Your task to perform on an android device: Search for jbl charge 4 on walmart.com, select the first entry, and add it to the cart. Image 0: 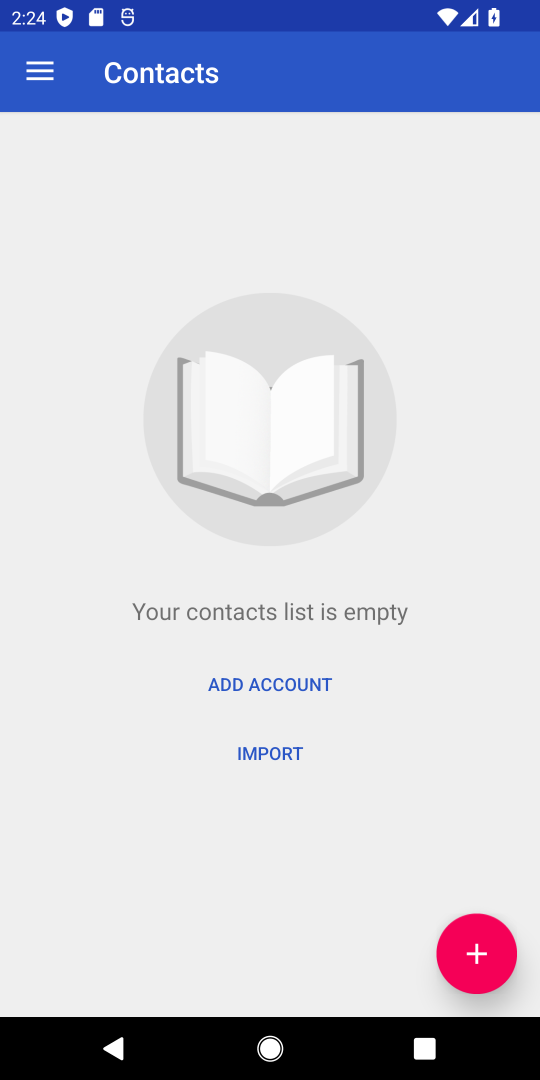
Step 0: press home button
Your task to perform on an android device: Search for jbl charge 4 on walmart.com, select the first entry, and add it to the cart. Image 1: 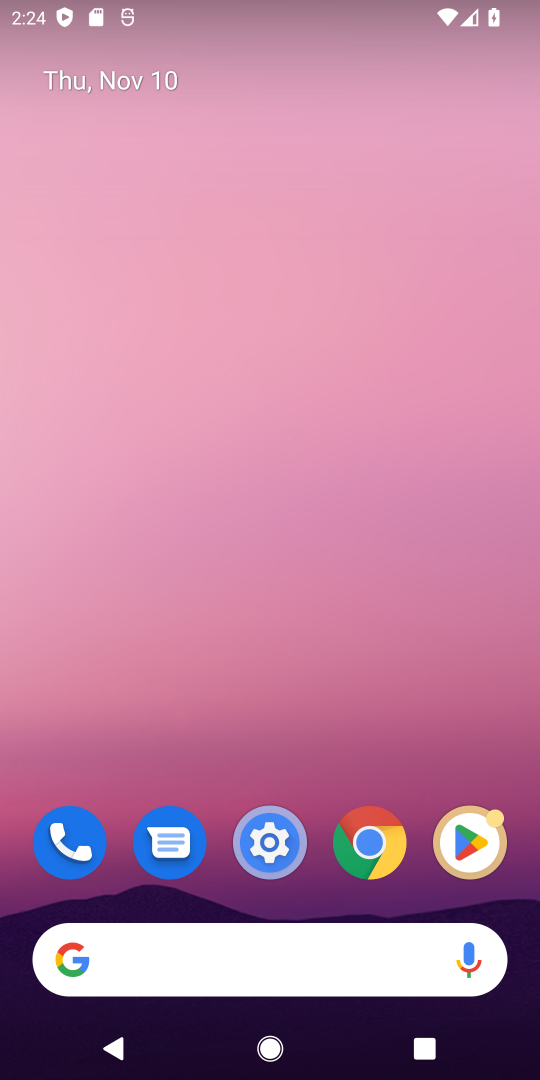
Step 1: click (111, 952)
Your task to perform on an android device: Search for jbl charge 4 on walmart.com, select the first entry, and add it to the cart. Image 2: 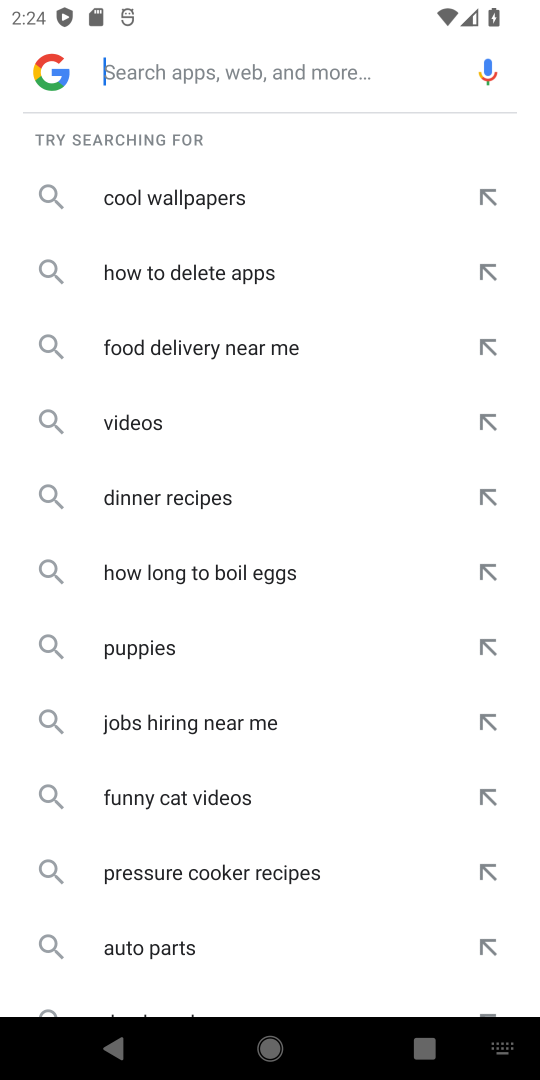
Step 2: type "walmart.com,"
Your task to perform on an android device: Search for jbl charge 4 on walmart.com, select the first entry, and add it to the cart. Image 3: 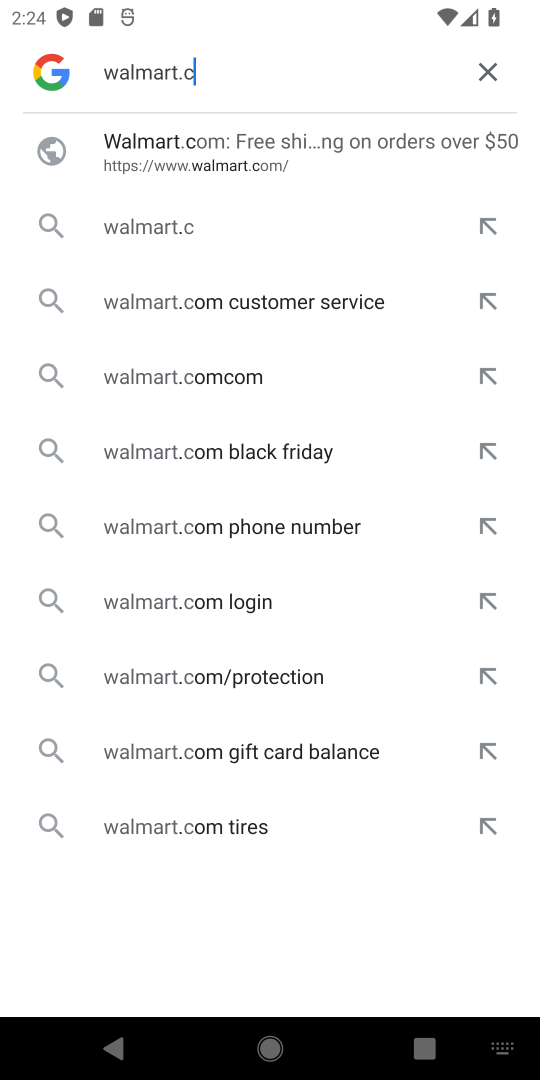
Step 3: press enter
Your task to perform on an android device: Search for jbl charge 4 on walmart.com, select the first entry, and add it to the cart. Image 4: 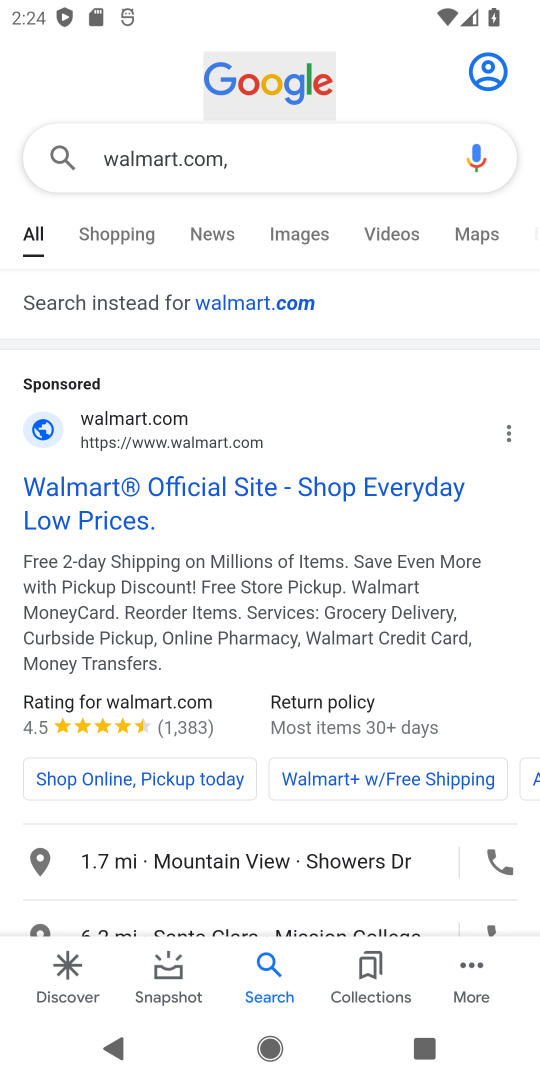
Step 4: click (130, 487)
Your task to perform on an android device: Search for jbl charge 4 on walmart.com, select the first entry, and add it to the cart. Image 5: 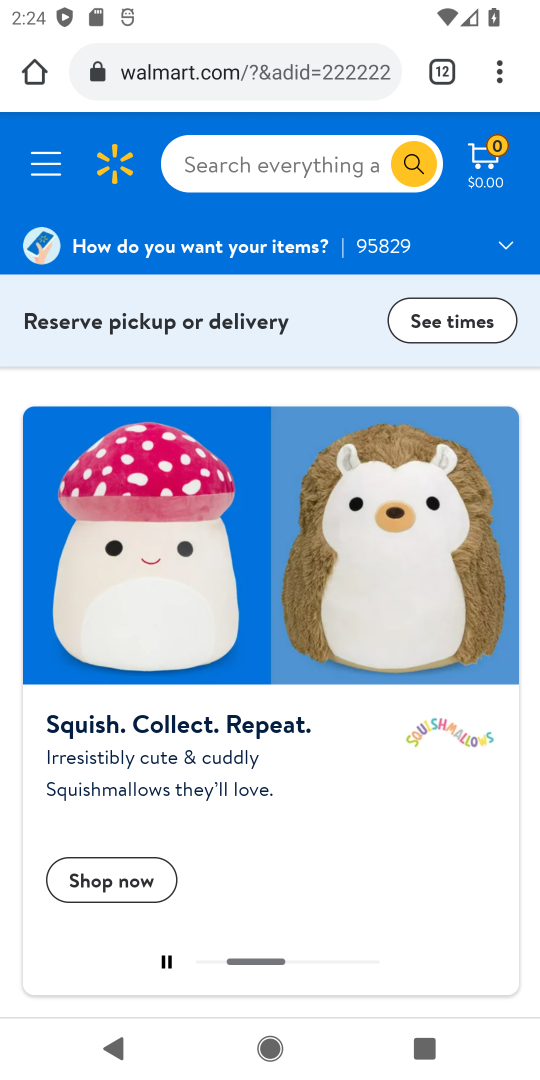
Step 5: click (207, 166)
Your task to perform on an android device: Search for jbl charge 4 on walmart.com, select the first entry, and add it to the cart. Image 6: 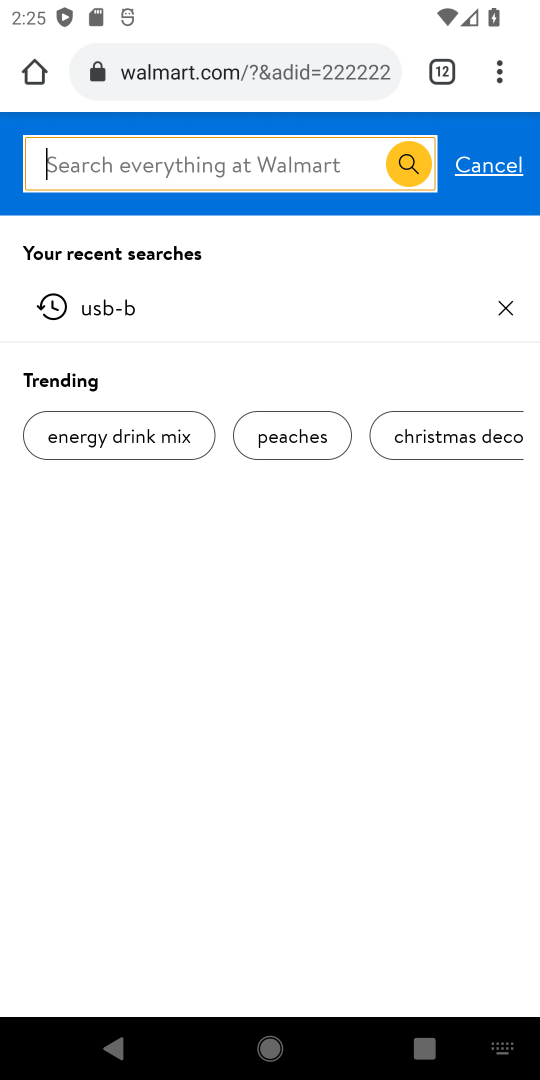
Step 6: type " jbl charge 4"
Your task to perform on an android device: Search for jbl charge 4 on walmart.com, select the first entry, and add it to the cart. Image 7: 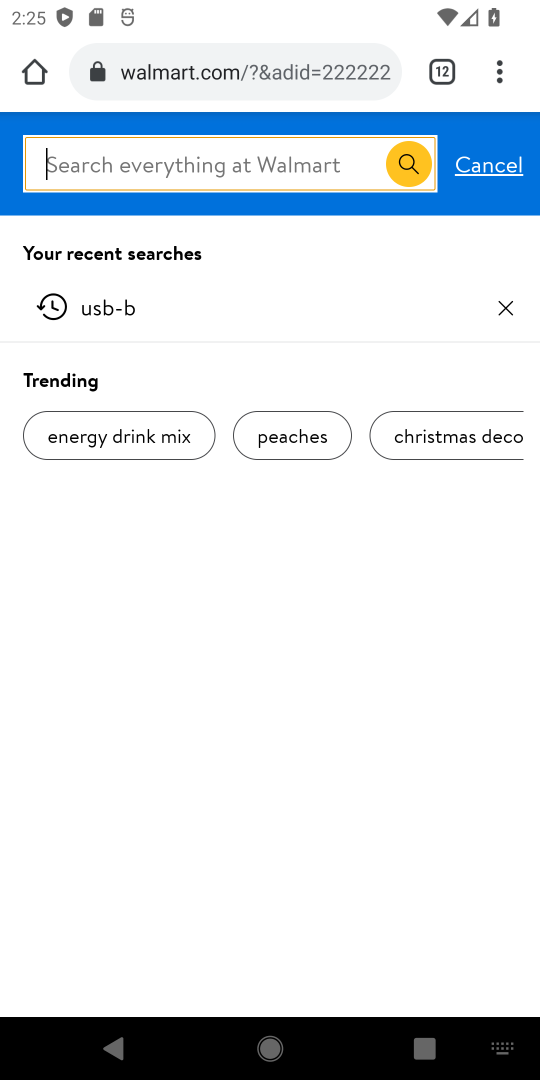
Step 7: press enter
Your task to perform on an android device: Search for jbl charge 4 on walmart.com, select the first entry, and add it to the cart. Image 8: 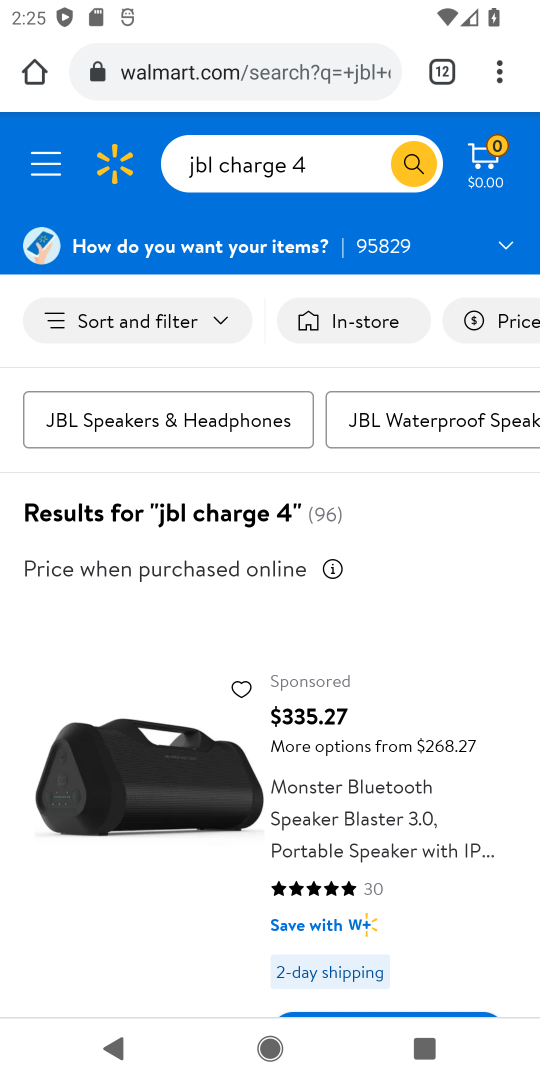
Step 8: drag from (407, 918) to (407, 641)
Your task to perform on an android device: Search for jbl charge 4 on walmart.com, select the first entry, and add it to the cart. Image 9: 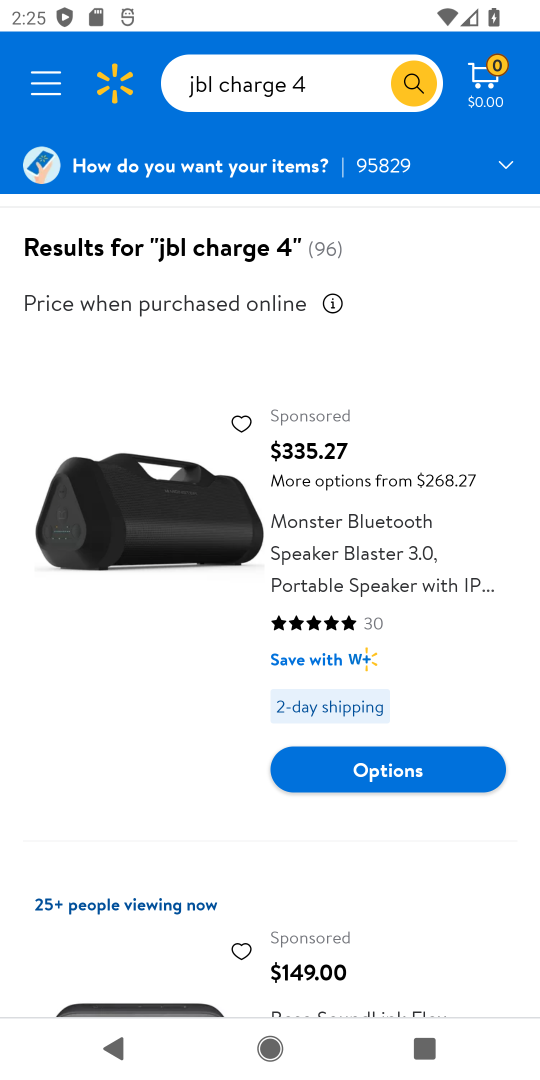
Step 9: drag from (366, 867) to (393, 584)
Your task to perform on an android device: Search for jbl charge 4 on walmart.com, select the first entry, and add it to the cart. Image 10: 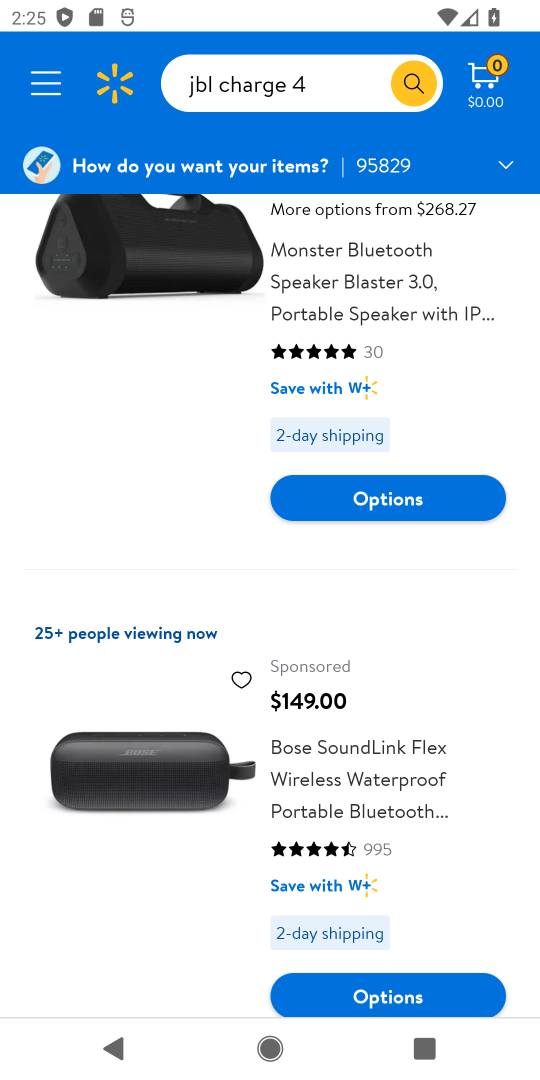
Step 10: drag from (371, 879) to (377, 431)
Your task to perform on an android device: Search for jbl charge 4 on walmart.com, select the first entry, and add it to the cart. Image 11: 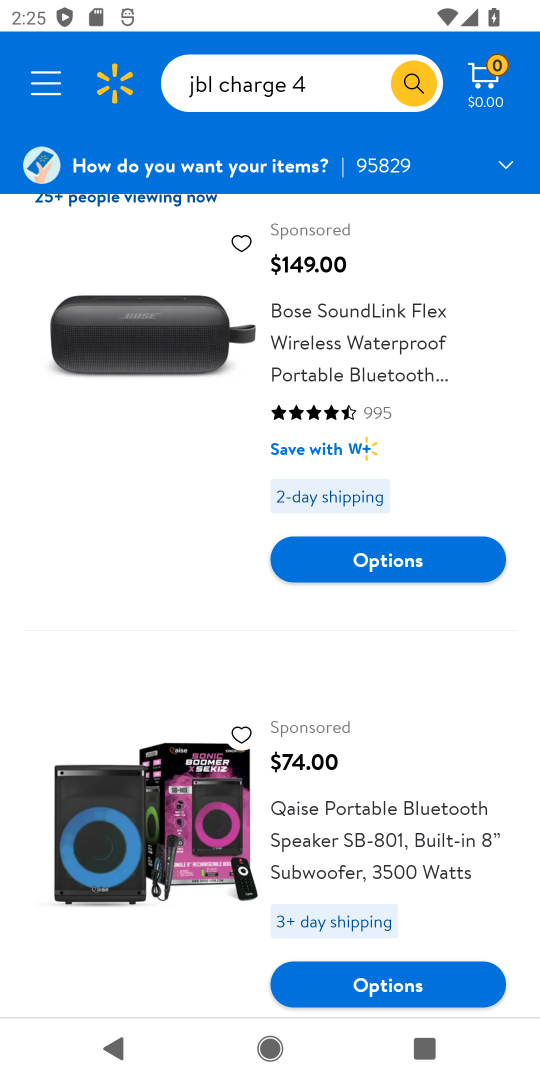
Step 11: drag from (353, 877) to (401, 406)
Your task to perform on an android device: Search for jbl charge 4 on walmart.com, select the first entry, and add it to the cart. Image 12: 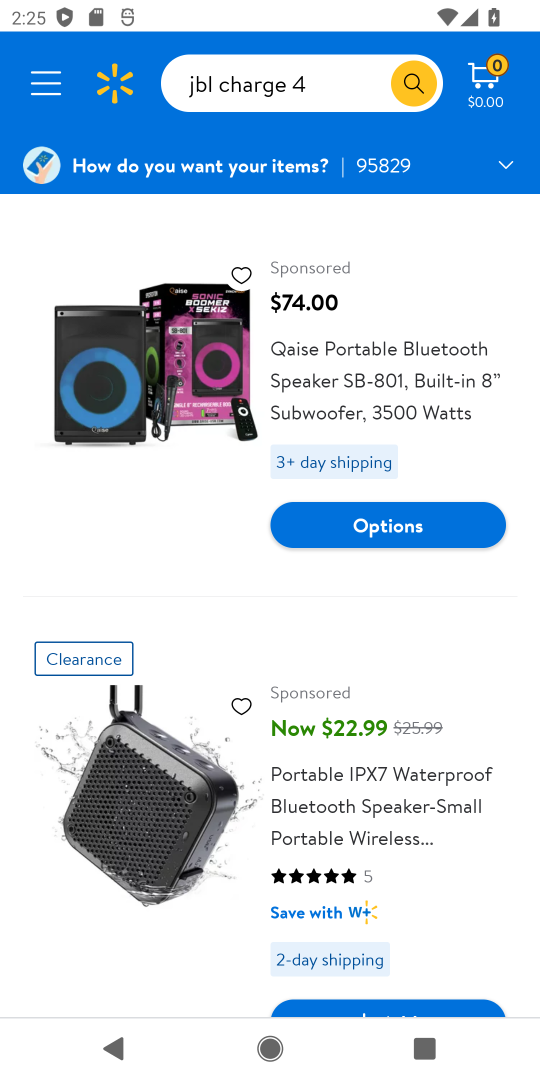
Step 12: drag from (379, 925) to (423, 461)
Your task to perform on an android device: Search for jbl charge 4 on walmart.com, select the first entry, and add it to the cart. Image 13: 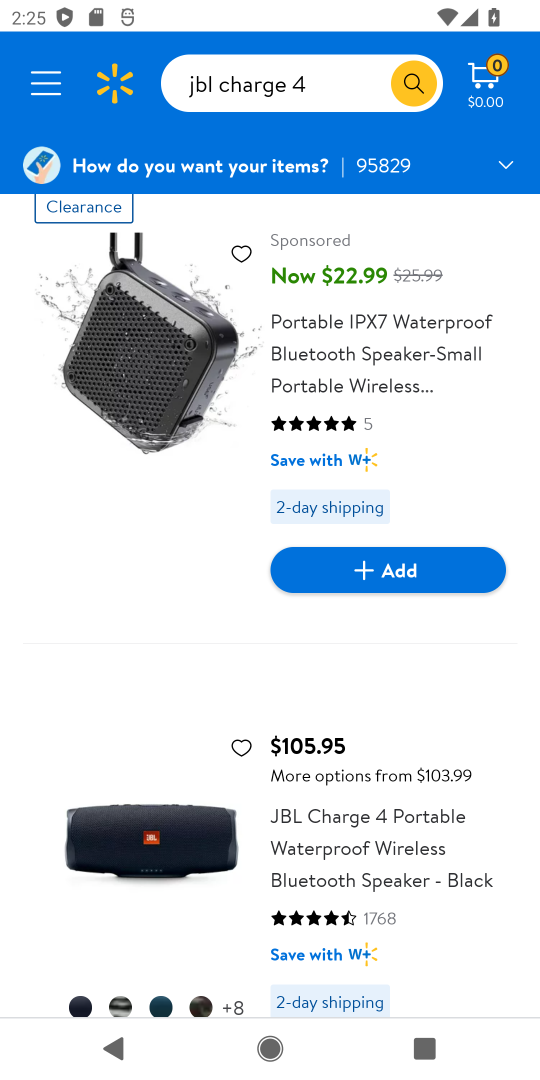
Step 13: drag from (375, 919) to (390, 544)
Your task to perform on an android device: Search for jbl charge 4 on walmart.com, select the first entry, and add it to the cart. Image 14: 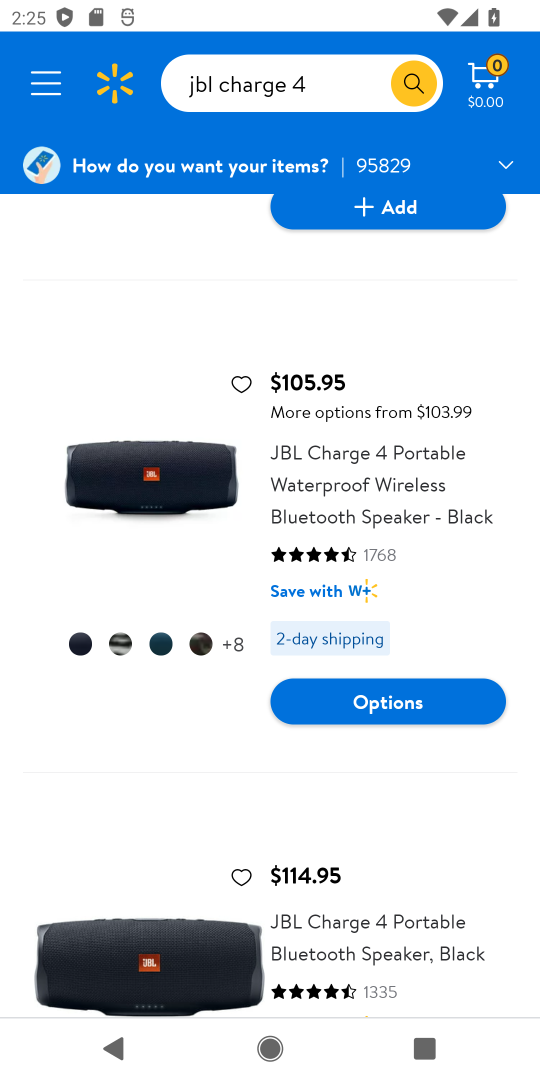
Step 14: click (366, 498)
Your task to perform on an android device: Search for jbl charge 4 on walmart.com, select the first entry, and add it to the cart. Image 15: 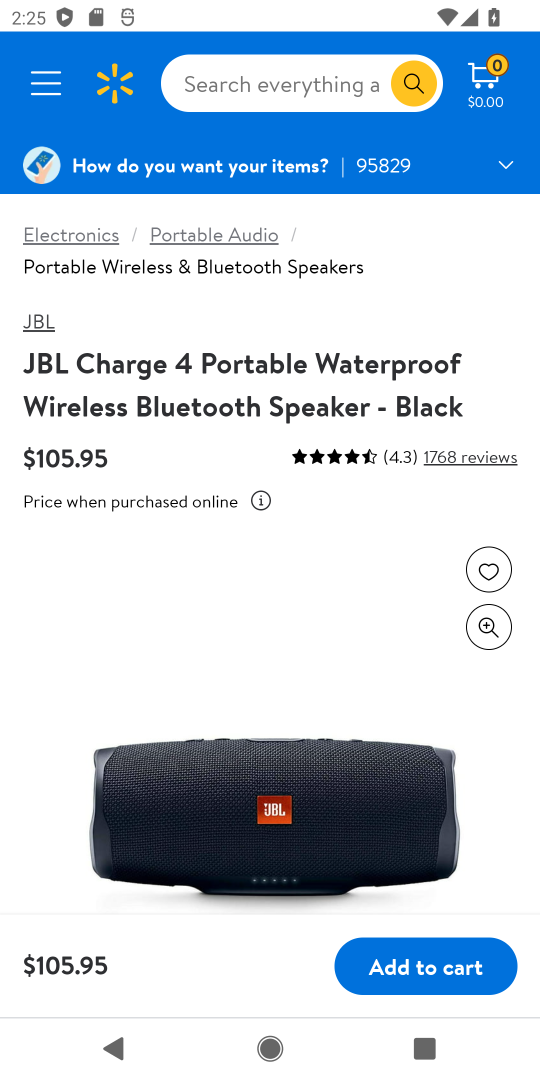
Step 15: click (453, 971)
Your task to perform on an android device: Search for jbl charge 4 on walmart.com, select the first entry, and add it to the cart. Image 16: 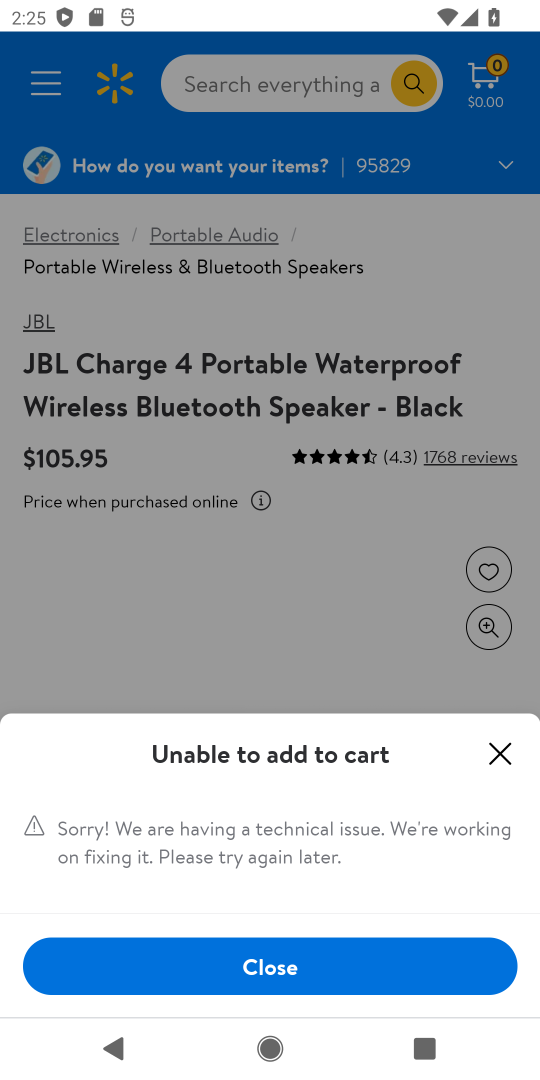
Step 16: task complete